Your task to perform on an android device: Go to Yahoo.com Image 0: 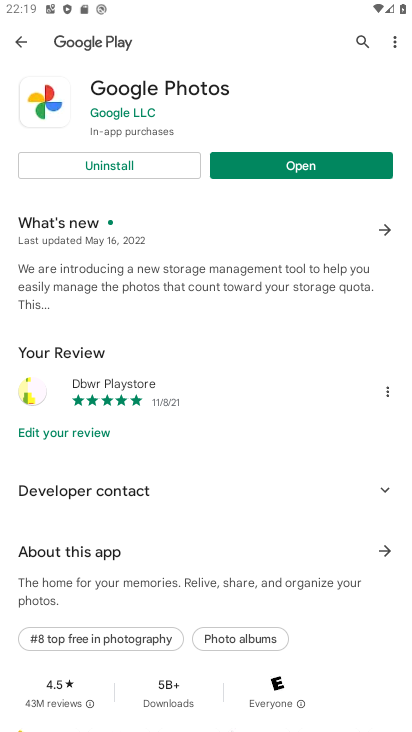
Step 0: press back button
Your task to perform on an android device: Go to Yahoo.com Image 1: 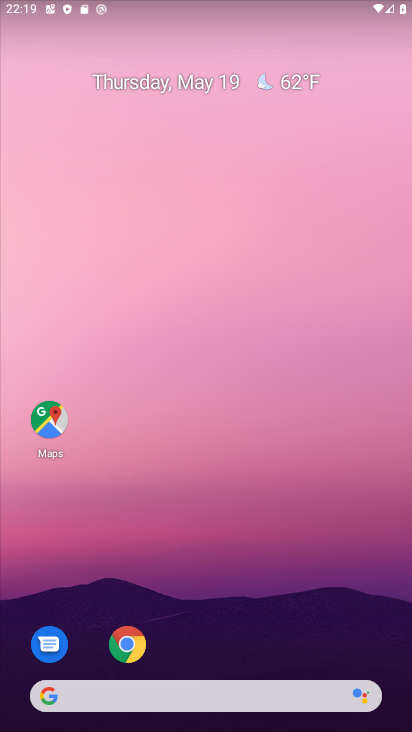
Step 1: drag from (252, 640) to (198, 168)
Your task to perform on an android device: Go to Yahoo.com Image 2: 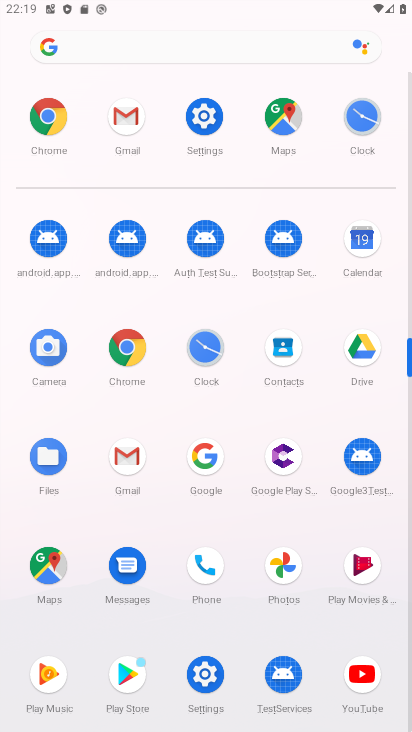
Step 2: click (56, 115)
Your task to perform on an android device: Go to Yahoo.com Image 3: 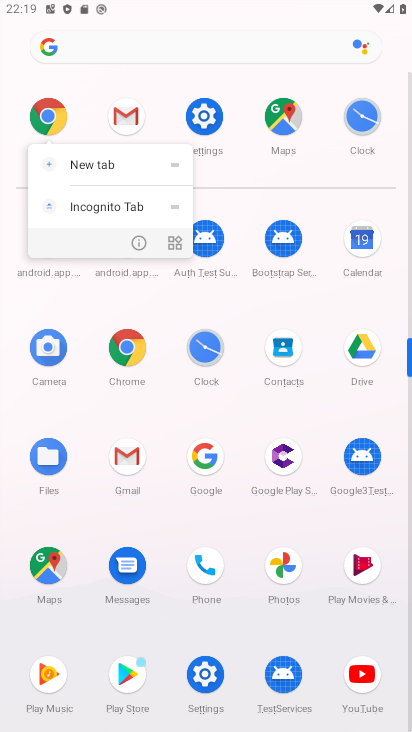
Step 3: click (50, 122)
Your task to perform on an android device: Go to Yahoo.com Image 4: 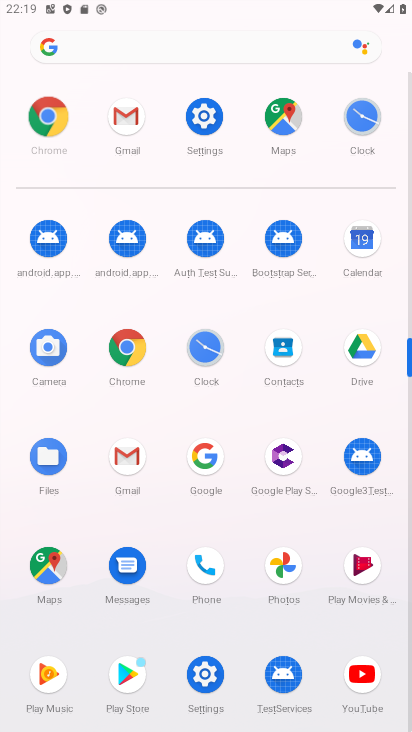
Step 4: click (50, 122)
Your task to perform on an android device: Go to Yahoo.com Image 5: 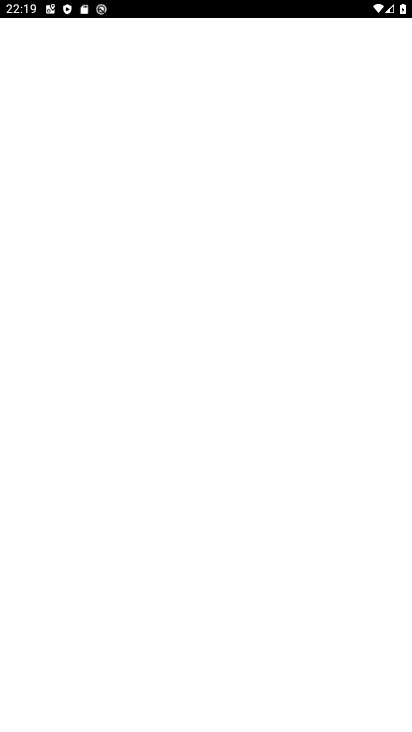
Step 5: click (50, 122)
Your task to perform on an android device: Go to Yahoo.com Image 6: 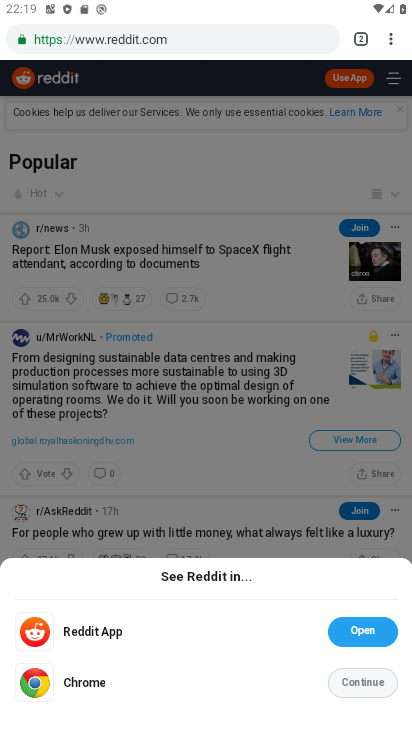
Step 6: press back button
Your task to perform on an android device: Go to Yahoo.com Image 7: 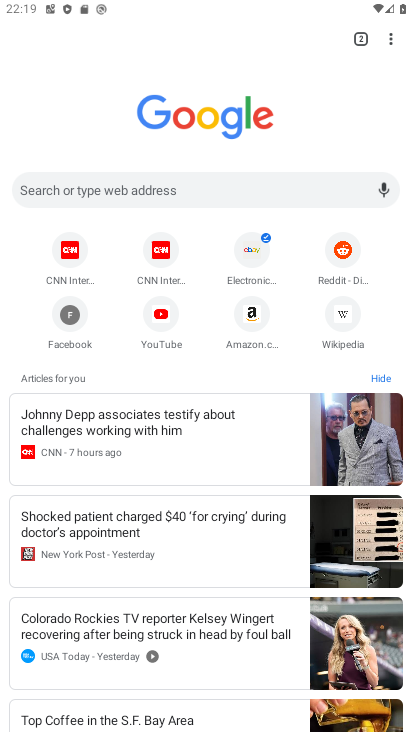
Step 7: click (51, 161)
Your task to perform on an android device: Go to Yahoo.com Image 8: 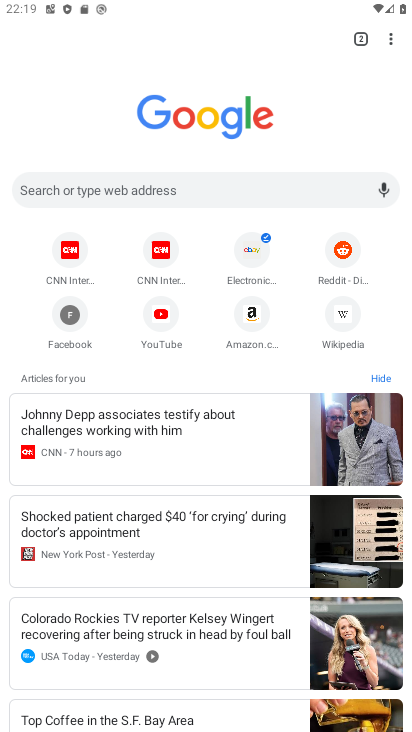
Step 8: click (53, 174)
Your task to perform on an android device: Go to Yahoo.com Image 9: 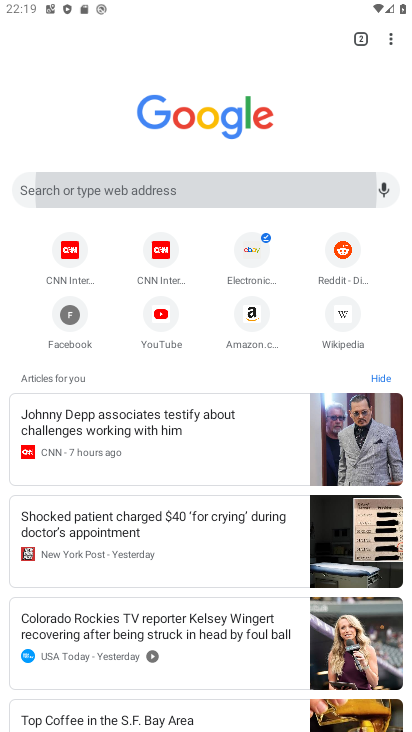
Step 9: click (53, 174)
Your task to perform on an android device: Go to Yahoo.com Image 10: 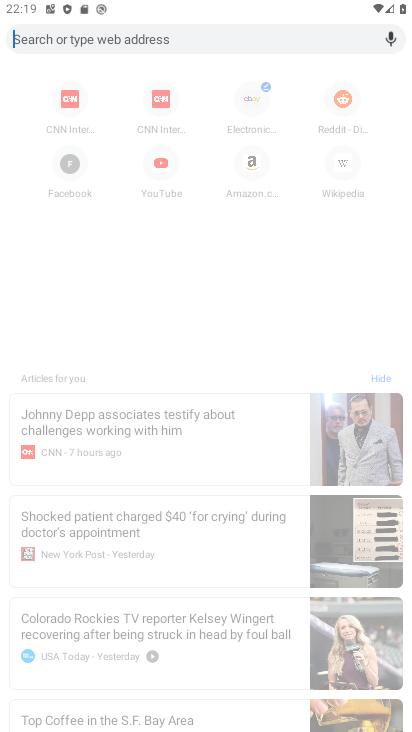
Step 10: click (53, 174)
Your task to perform on an android device: Go to Yahoo.com Image 11: 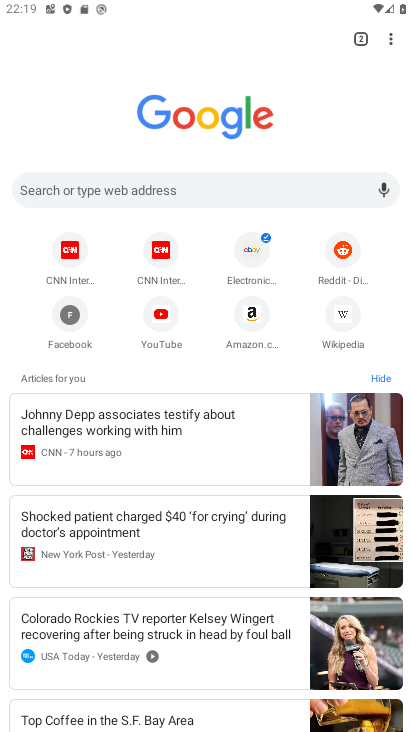
Step 11: click (56, 195)
Your task to perform on an android device: Go to Yahoo.com Image 12: 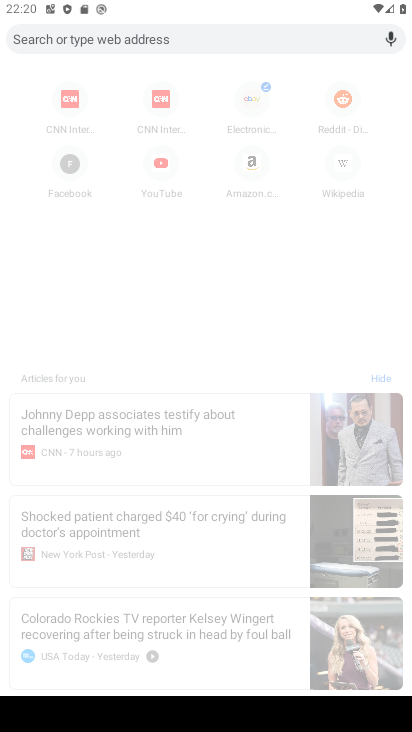
Step 12: type "yahoo.com"
Your task to perform on an android device: Go to Yahoo.com Image 13: 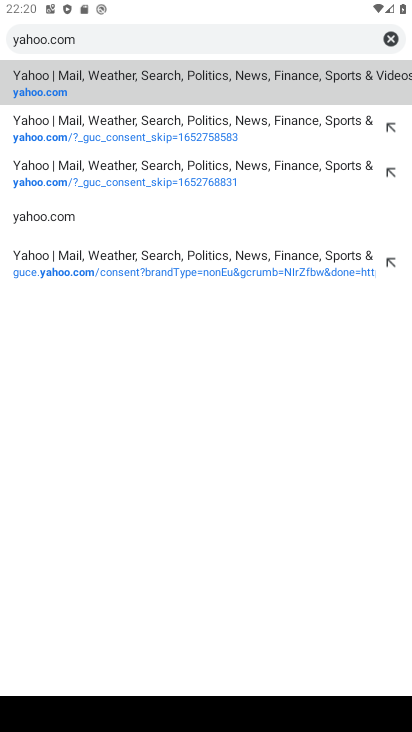
Step 13: click (58, 91)
Your task to perform on an android device: Go to Yahoo.com Image 14: 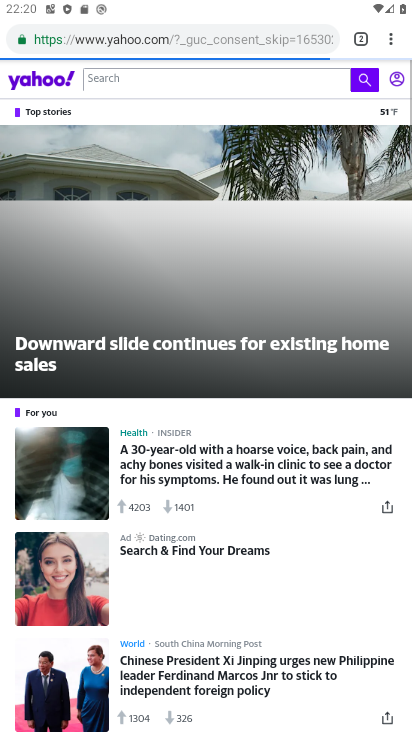
Step 14: task complete